Your task to perform on an android device: Go to CNN.com Image 0: 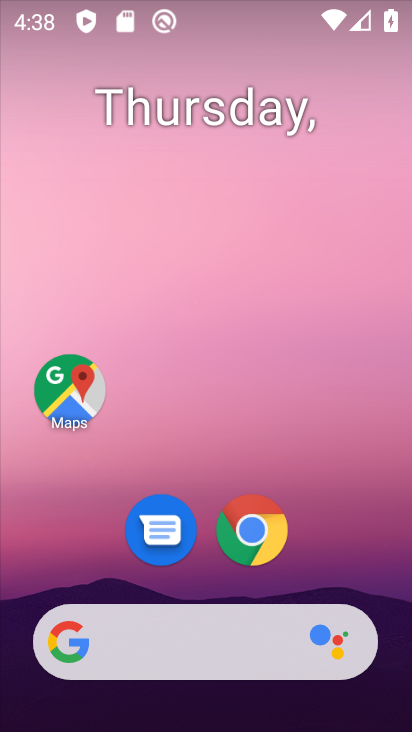
Step 0: drag from (173, 639) to (201, 6)
Your task to perform on an android device: Go to CNN.com Image 1: 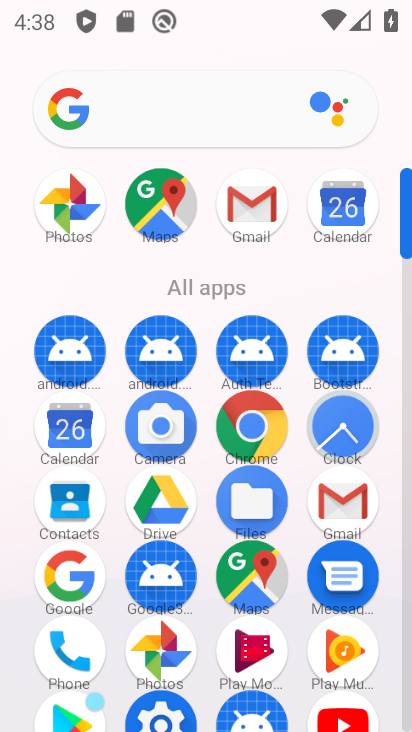
Step 1: click (254, 425)
Your task to perform on an android device: Go to CNN.com Image 2: 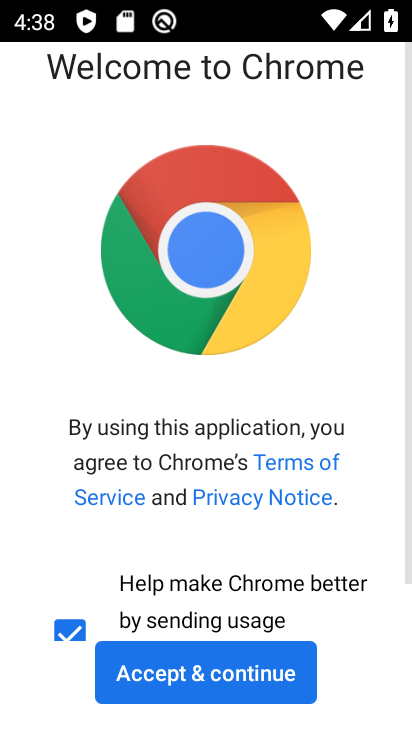
Step 2: click (255, 685)
Your task to perform on an android device: Go to CNN.com Image 3: 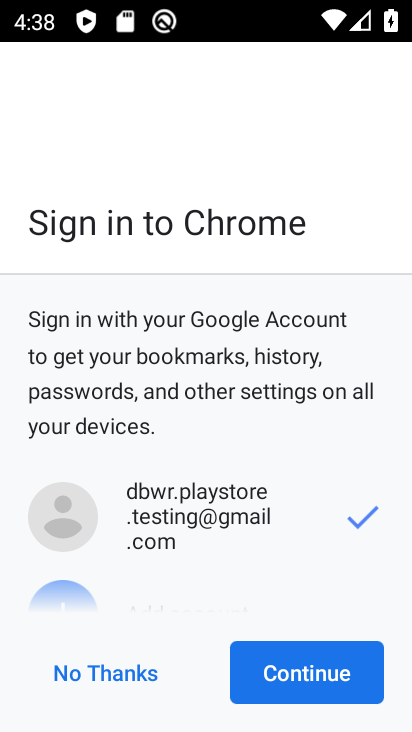
Step 3: click (95, 677)
Your task to perform on an android device: Go to CNN.com Image 4: 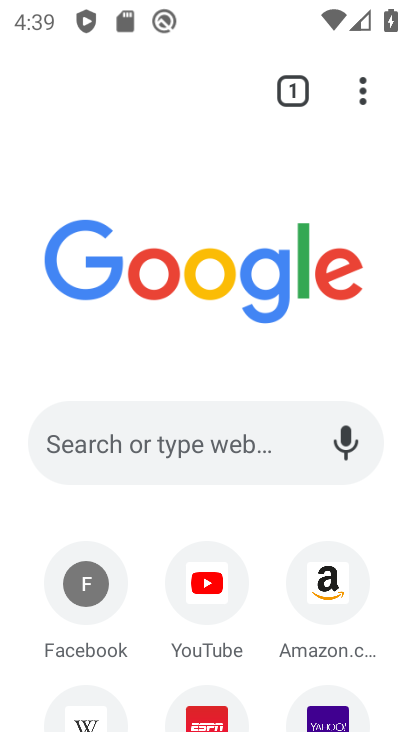
Step 4: click (266, 474)
Your task to perform on an android device: Go to CNN.com Image 5: 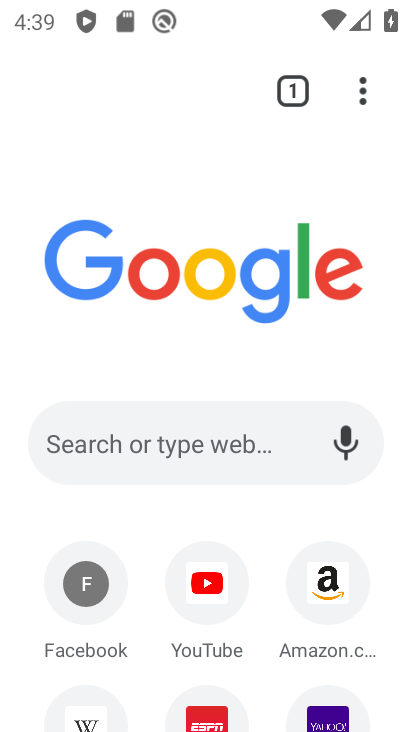
Step 5: click (266, 474)
Your task to perform on an android device: Go to CNN.com Image 6: 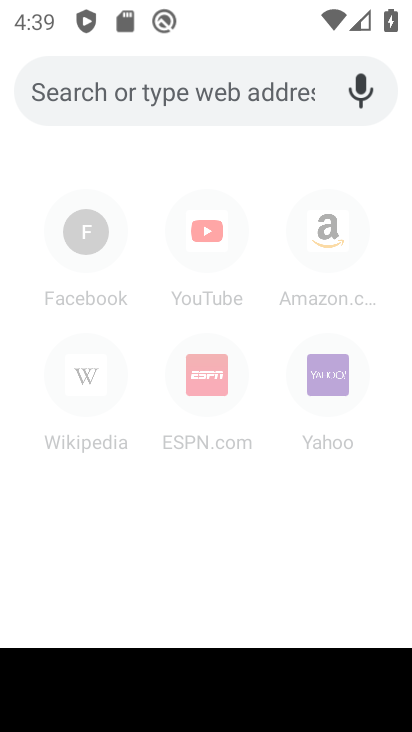
Step 6: type "cnn.com"
Your task to perform on an android device: Go to CNN.com Image 7: 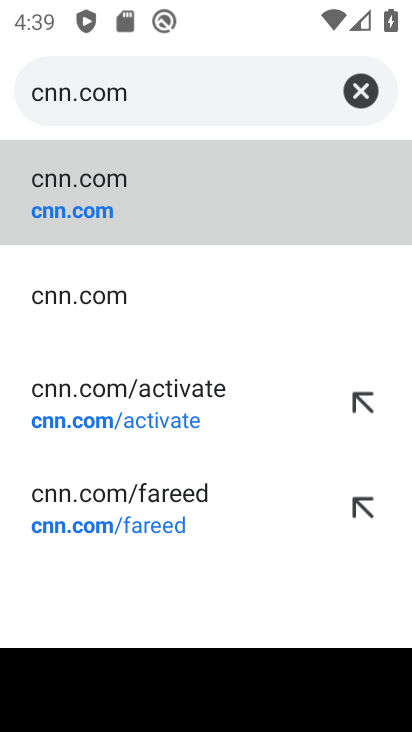
Step 7: click (163, 199)
Your task to perform on an android device: Go to CNN.com Image 8: 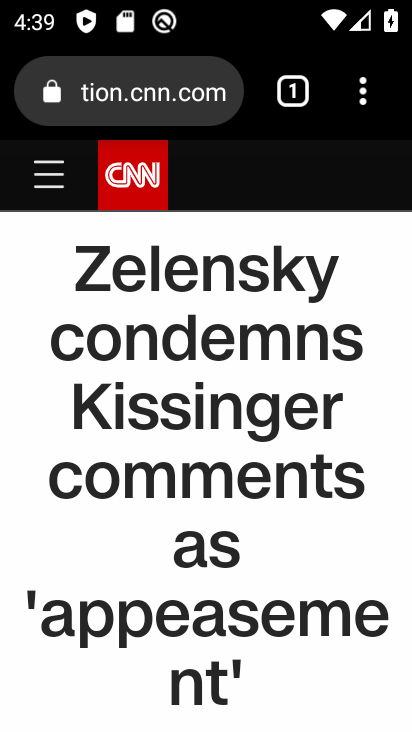
Step 8: task complete